Your task to perform on an android device: Open Amazon Image 0: 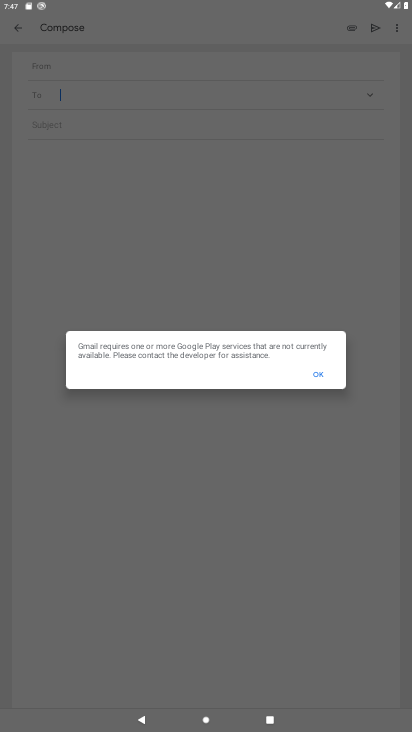
Step 0: press home button
Your task to perform on an android device: Open Amazon Image 1: 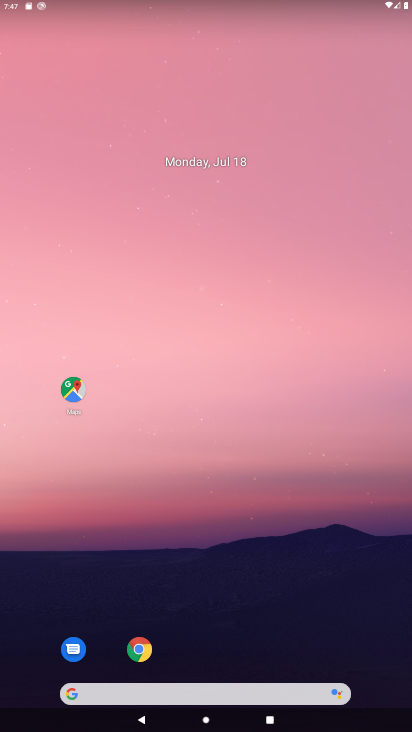
Step 1: click (142, 643)
Your task to perform on an android device: Open Amazon Image 2: 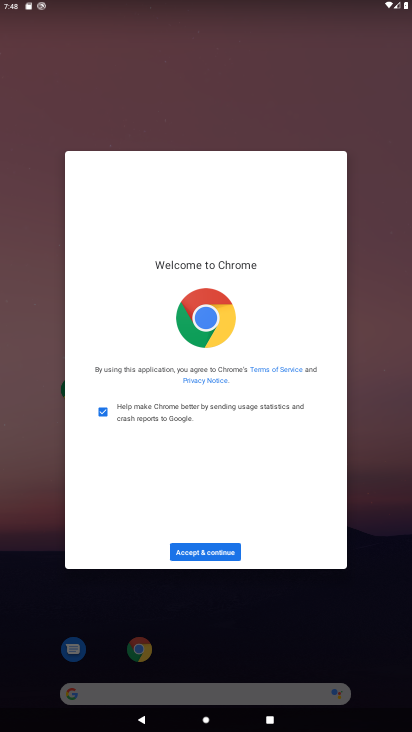
Step 2: click (229, 554)
Your task to perform on an android device: Open Amazon Image 3: 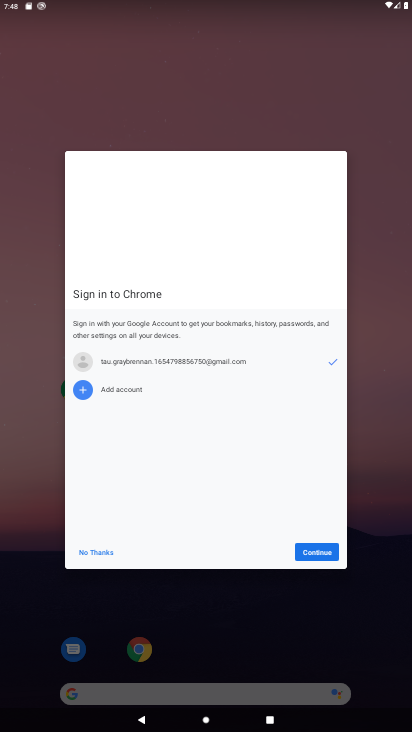
Step 3: click (322, 547)
Your task to perform on an android device: Open Amazon Image 4: 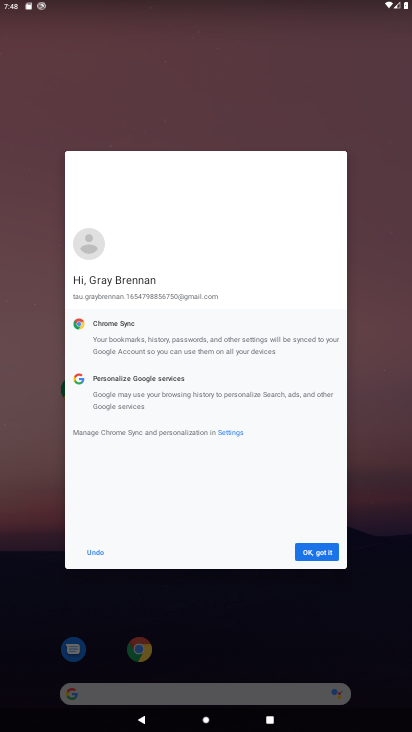
Step 4: click (322, 547)
Your task to perform on an android device: Open Amazon Image 5: 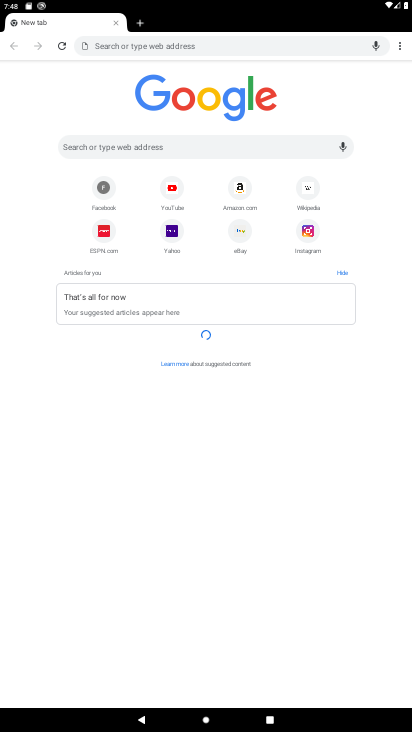
Step 5: click (231, 197)
Your task to perform on an android device: Open Amazon Image 6: 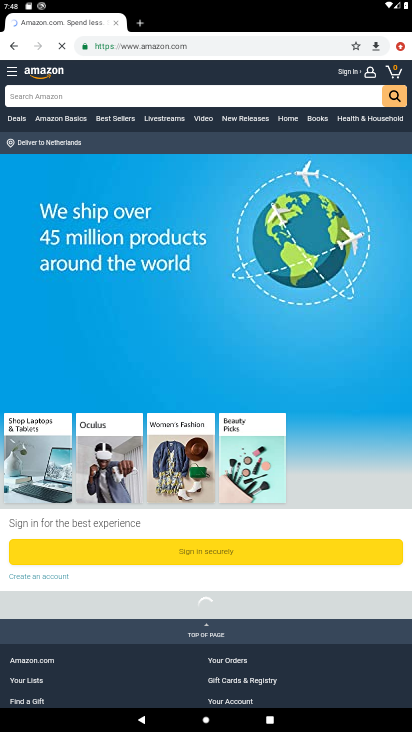
Step 6: task complete